Your task to perform on an android device: Search for "sony triple a" on amazon.com, select the first entry, add it to the cart, then select checkout. Image 0: 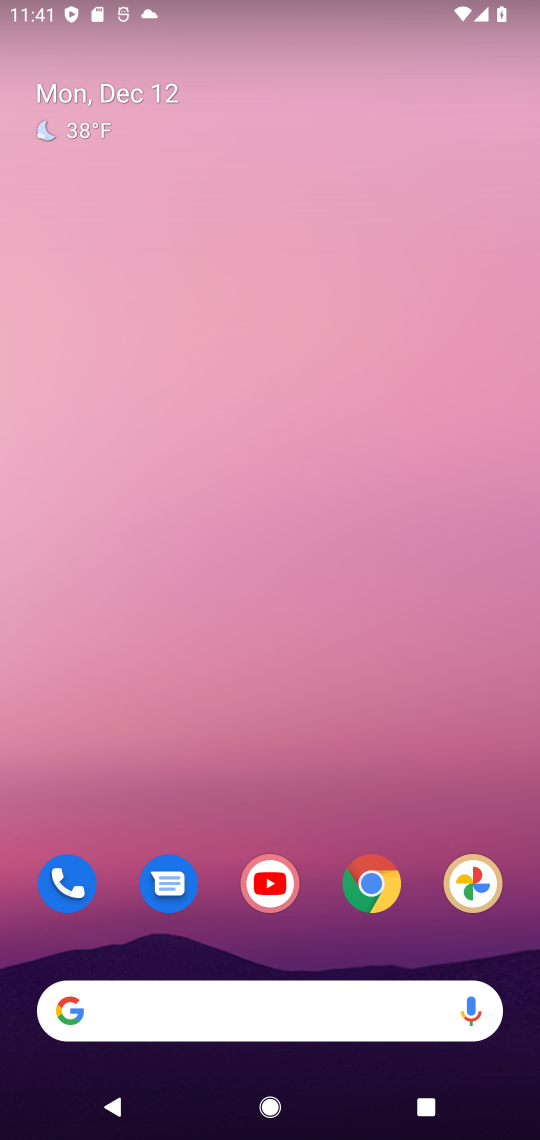
Step 0: click (302, 1016)
Your task to perform on an android device: Search for "sony triple a" on amazon.com, select the first entry, add it to the cart, then select checkout. Image 1: 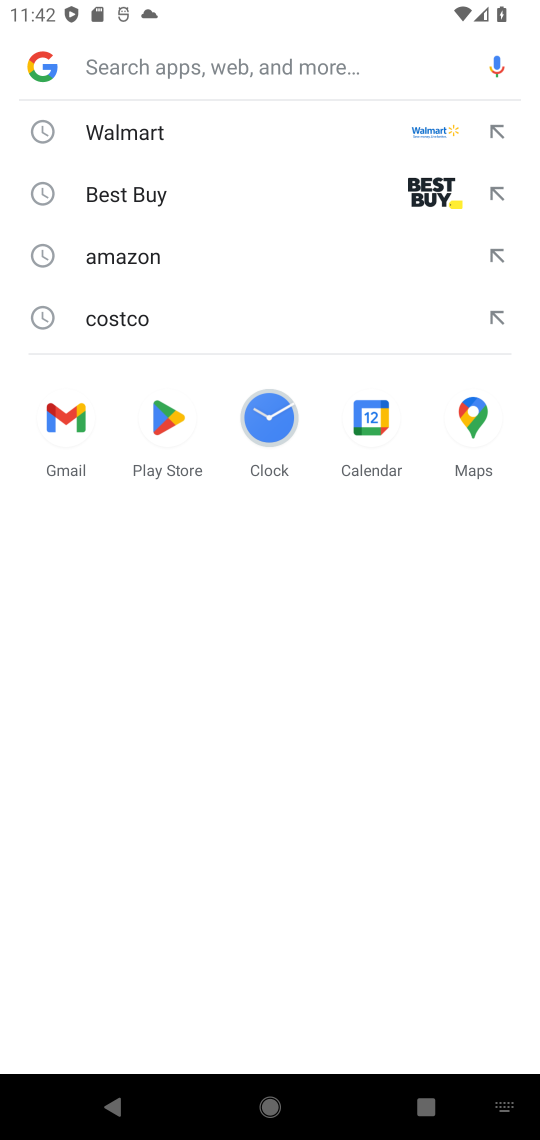
Step 1: click (153, 249)
Your task to perform on an android device: Search for "sony triple a" on amazon.com, select the first entry, add it to the cart, then select checkout. Image 2: 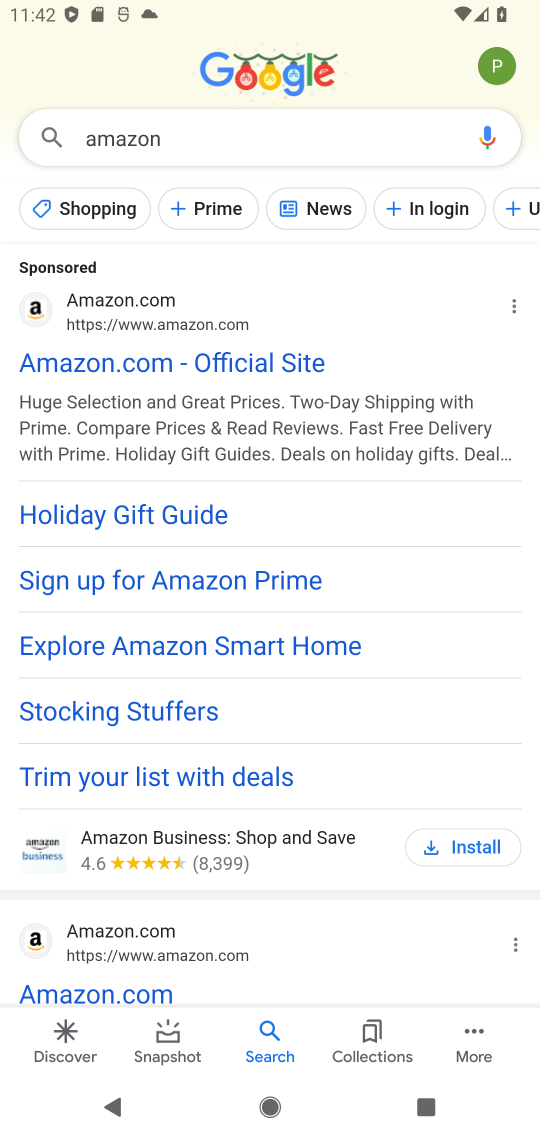
Step 2: click (93, 988)
Your task to perform on an android device: Search for "sony triple a" on amazon.com, select the first entry, add it to the cart, then select checkout. Image 3: 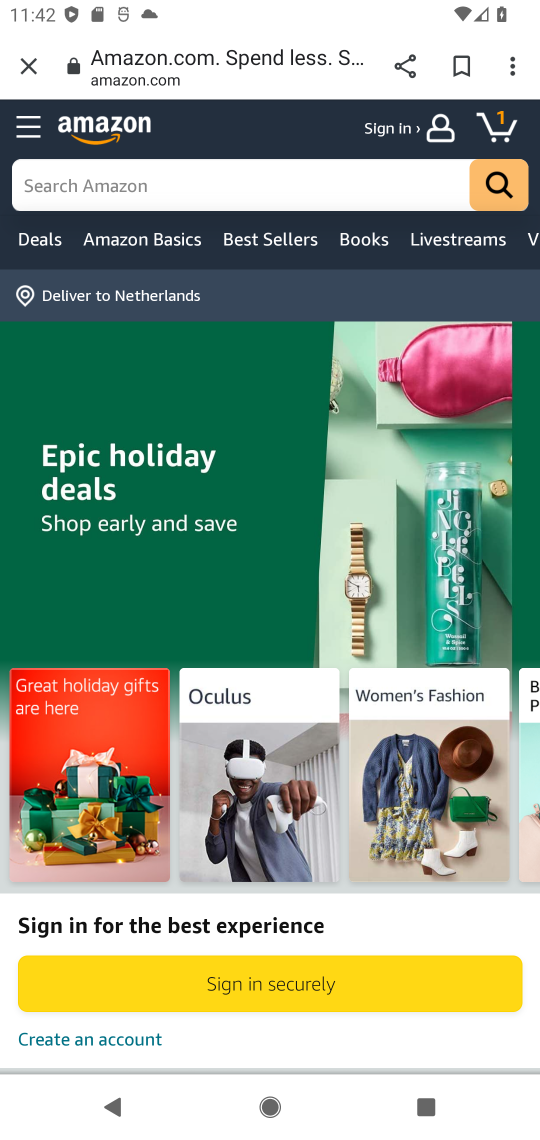
Step 3: drag from (205, 848) to (91, 986)
Your task to perform on an android device: Search for "sony triple a" on amazon.com, select the first entry, add it to the cart, then select checkout. Image 4: 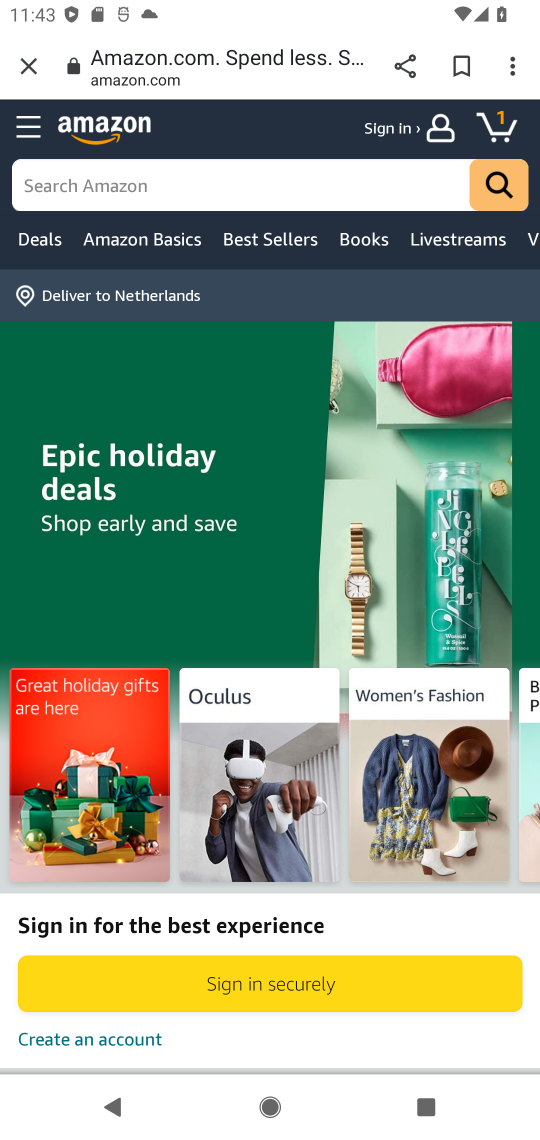
Step 4: press home button
Your task to perform on an android device: Search for "sony triple a" on amazon.com, select the first entry, add it to the cart, then select checkout. Image 5: 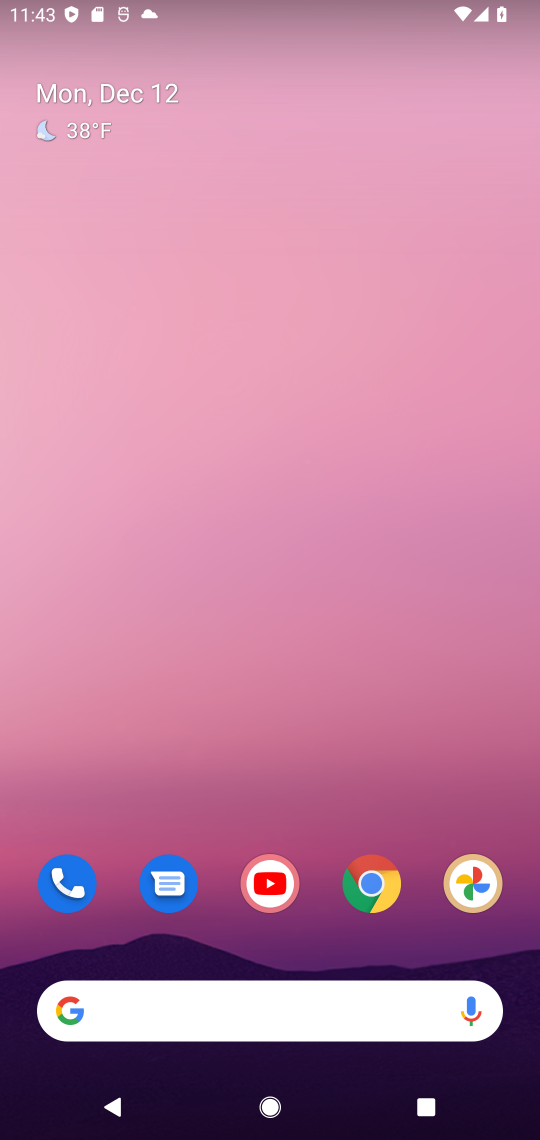
Step 5: click (269, 998)
Your task to perform on an android device: Search for "sony triple a" on amazon.com, select the first entry, add it to the cart, then select checkout. Image 6: 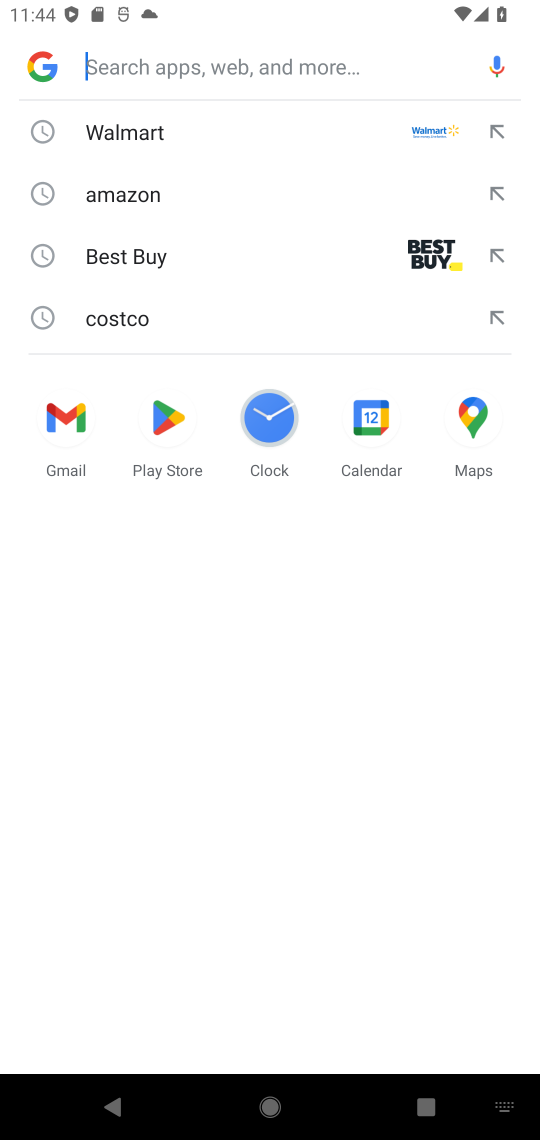
Step 6: click (142, 197)
Your task to perform on an android device: Search for "sony triple a" on amazon.com, select the first entry, add it to the cart, then select checkout. Image 7: 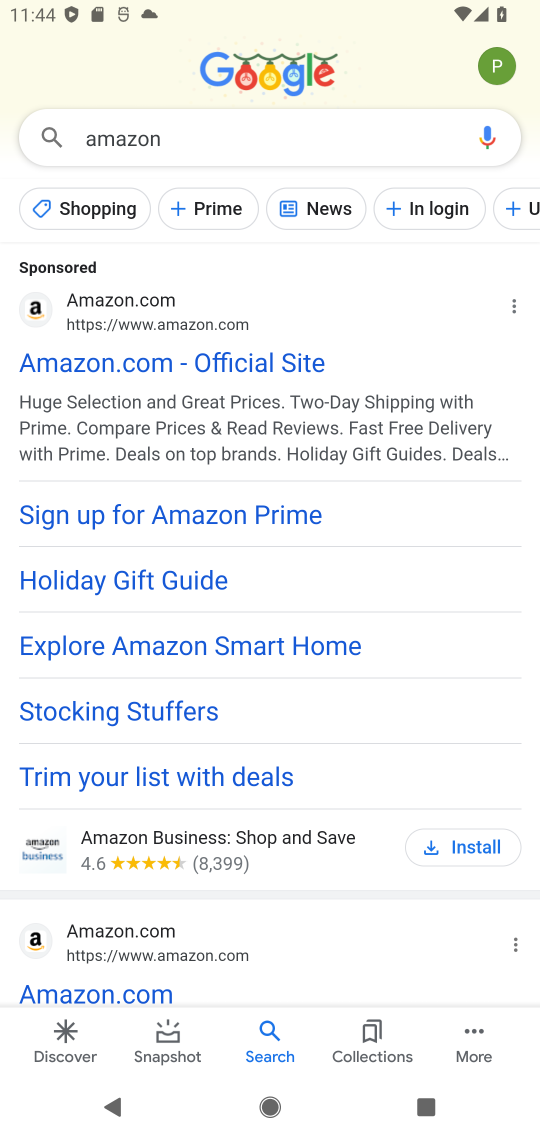
Step 7: click (161, 314)
Your task to perform on an android device: Search for "sony triple a" on amazon.com, select the first entry, add it to the cart, then select checkout. Image 8: 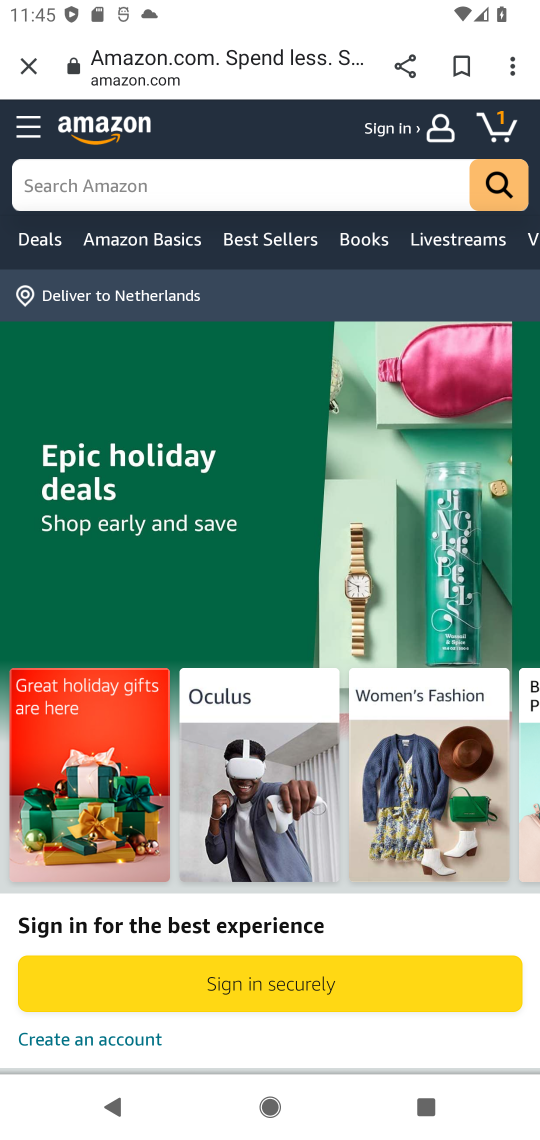
Step 8: click (335, 191)
Your task to perform on an android device: Search for "sony triple a" on amazon.com, select the first entry, add it to the cart, then select checkout. Image 9: 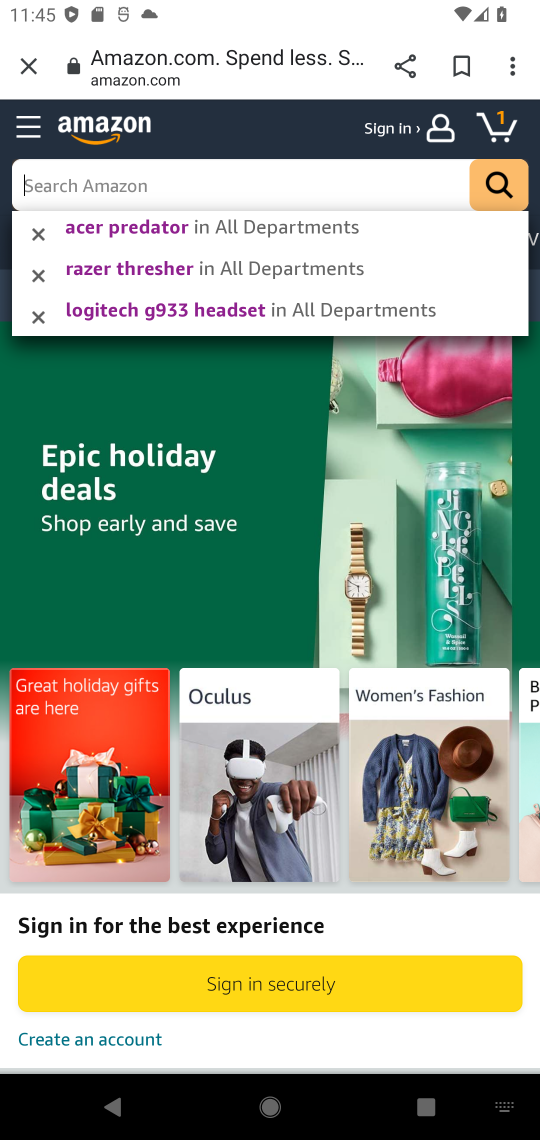
Step 9: type "sony triple a"
Your task to perform on an android device: Search for "sony triple a" on amazon.com, select the first entry, add it to the cart, then select checkout. Image 10: 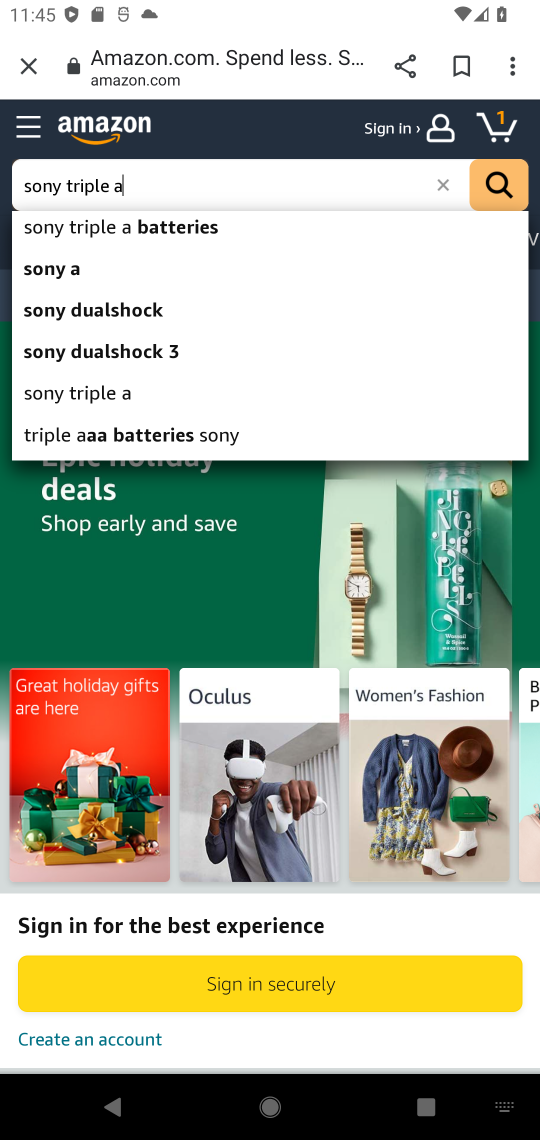
Step 10: click (125, 226)
Your task to perform on an android device: Search for "sony triple a" on amazon.com, select the first entry, add it to the cart, then select checkout. Image 11: 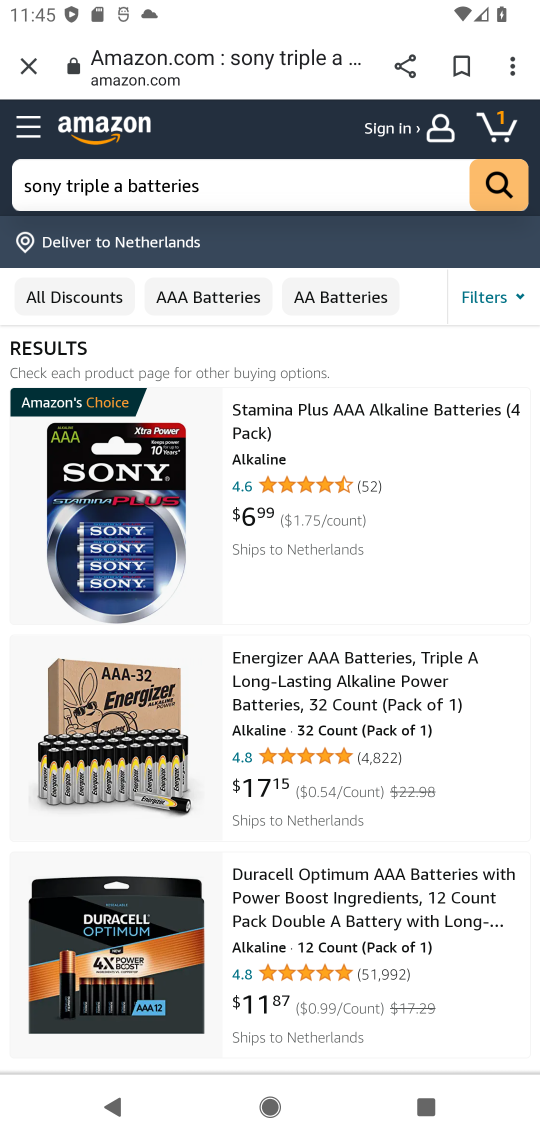
Step 11: click (325, 435)
Your task to perform on an android device: Search for "sony triple a" on amazon.com, select the first entry, add it to the cart, then select checkout. Image 12: 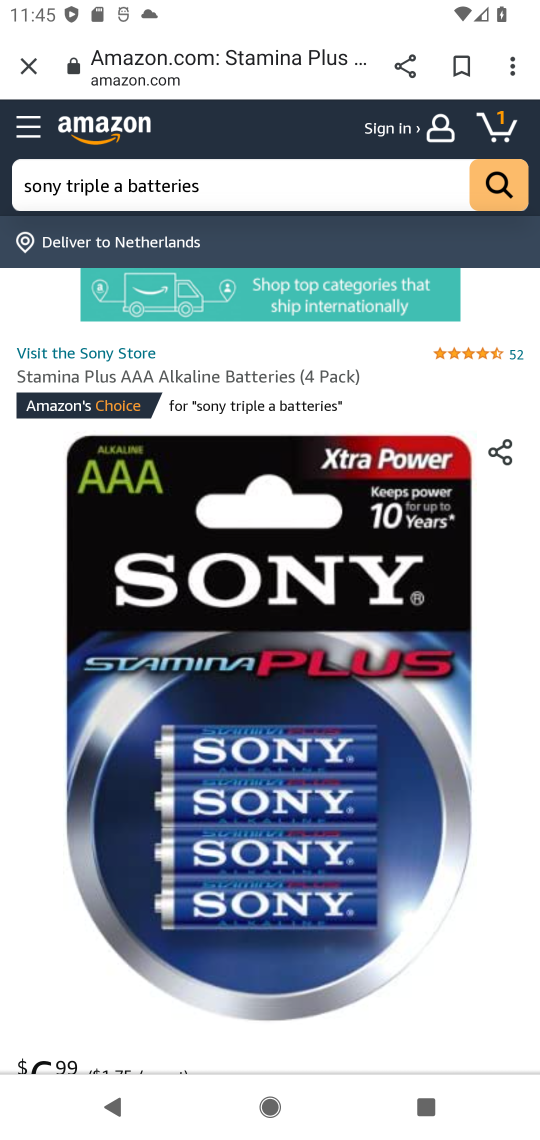
Step 12: drag from (297, 786) to (306, 520)
Your task to perform on an android device: Search for "sony triple a" on amazon.com, select the first entry, add it to the cart, then select checkout. Image 13: 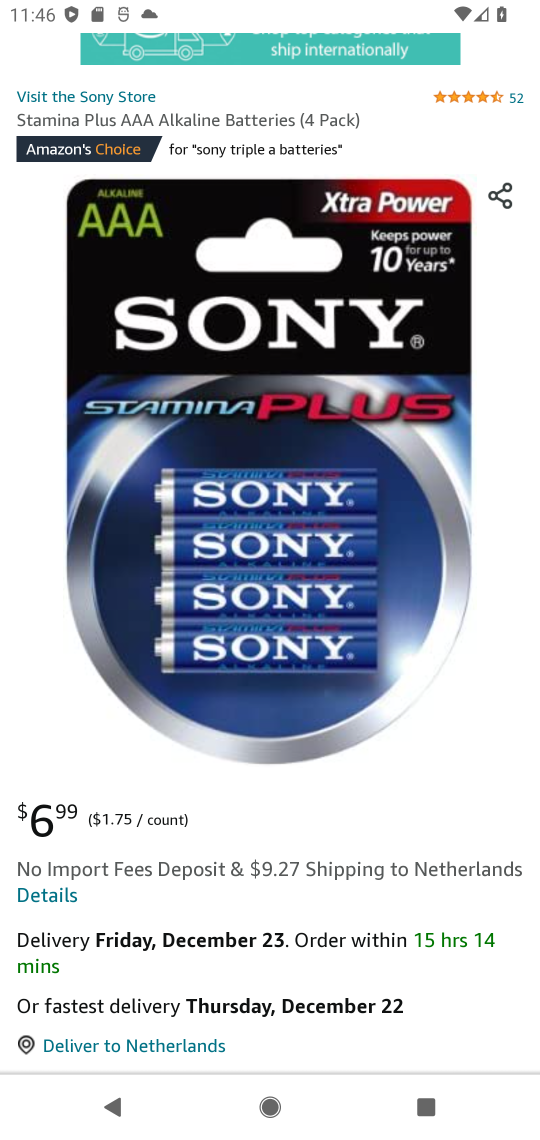
Step 13: drag from (333, 956) to (368, 621)
Your task to perform on an android device: Search for "sony triple a" on amazon.com, select the first entry, add it to the cart, then select checkout. Image 14: 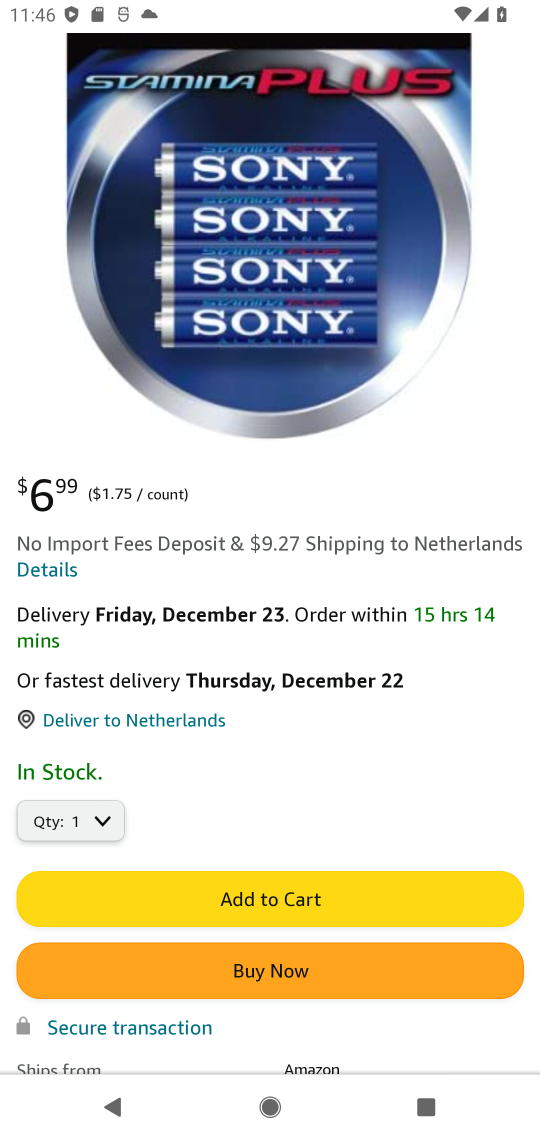
Step 14: click (285, 878)
Your task to perform on an android device: Search for "sony triple a" on amazon.com, select the first entry, add it to the cart, then select checkout. Image 15: 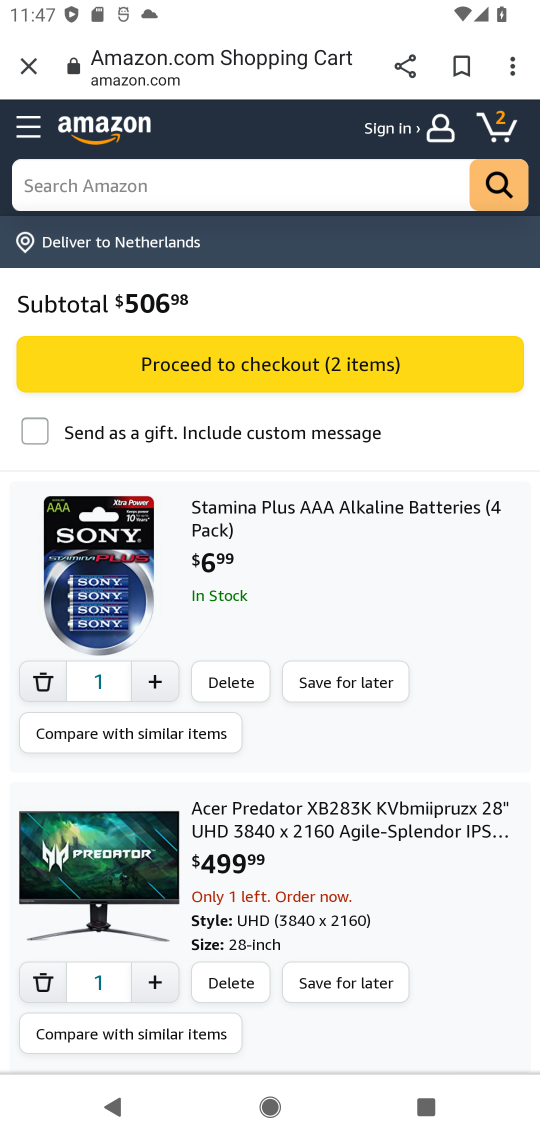
Step 15: click (328, 365)
Your task to perform on an android device: Search for "sony triple a" on amazon.com, select the first entry, add it to the cart, then select checkout. Image 16: 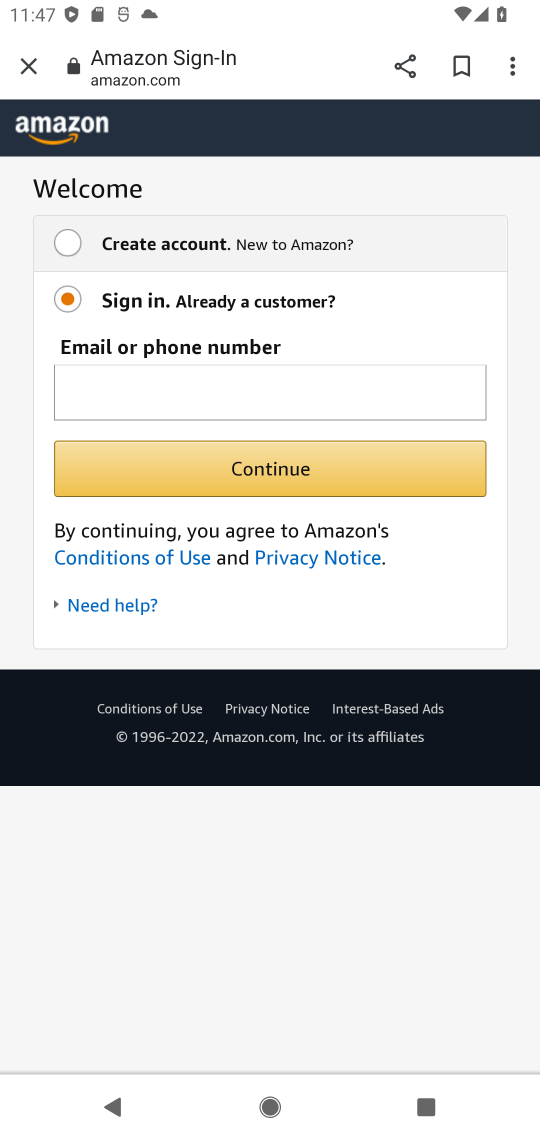
Step 16: task complete